Your task to perform on an android device: toggle location history Image 0: 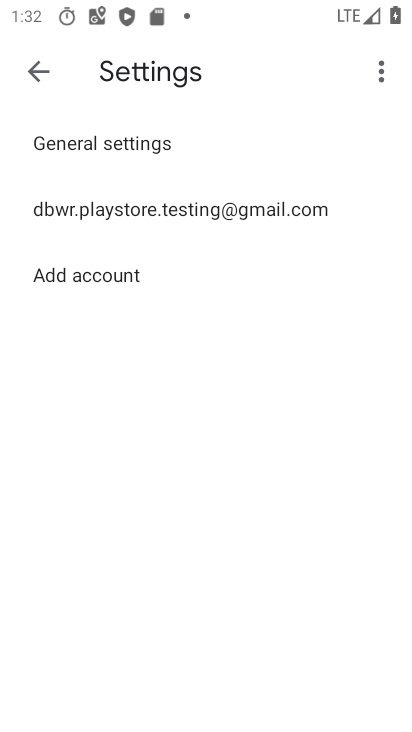
Step 0: press home button
Your task to perform on an android device: toggle location history Image 1: 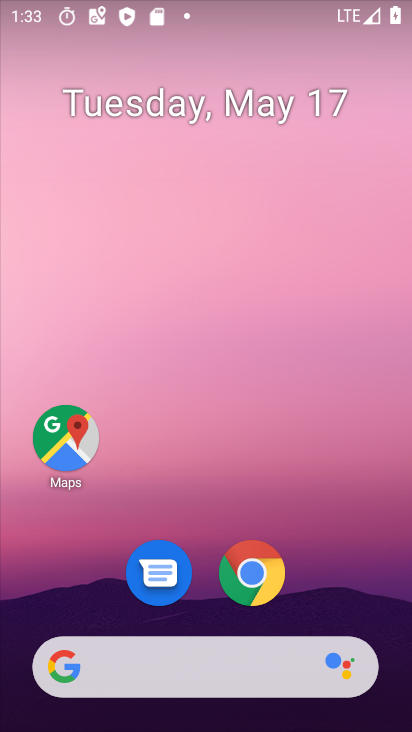
Step 1: drag from (262, 676) to (265, 42)
Your task to perform on an android device: toggle location history Image 2: 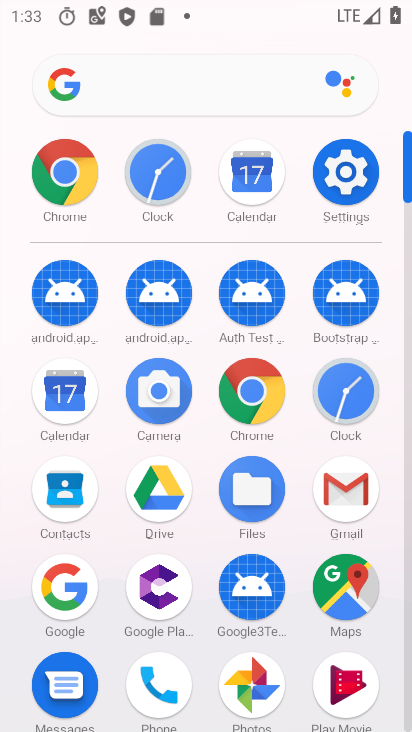
Step 2: click (343, 184)
Your task to perform on an android device: toggle location history Image 3: 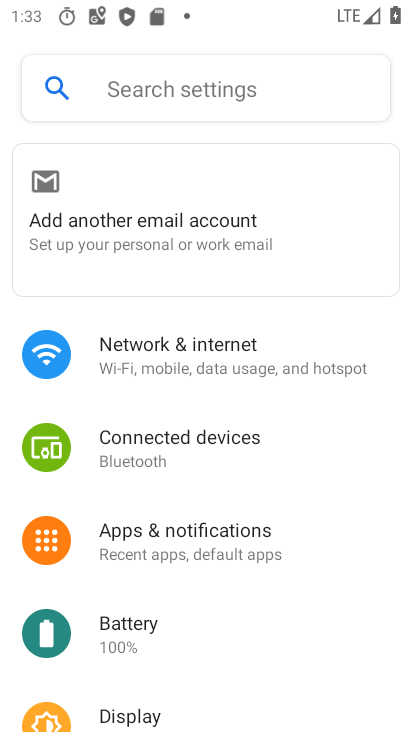
Step 3: drag from (207, 671) to (253, 121)
Your task to perform on an android device: toggle location history Image 4: 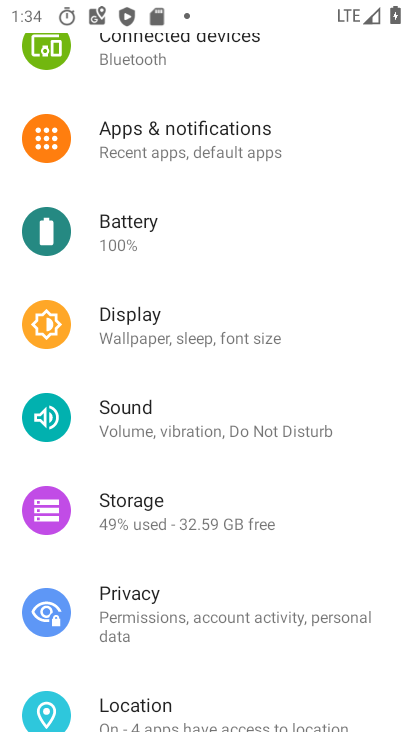
Step 4: click (154, 706)
Your task to perform on an android device: toggle location history Image 5: 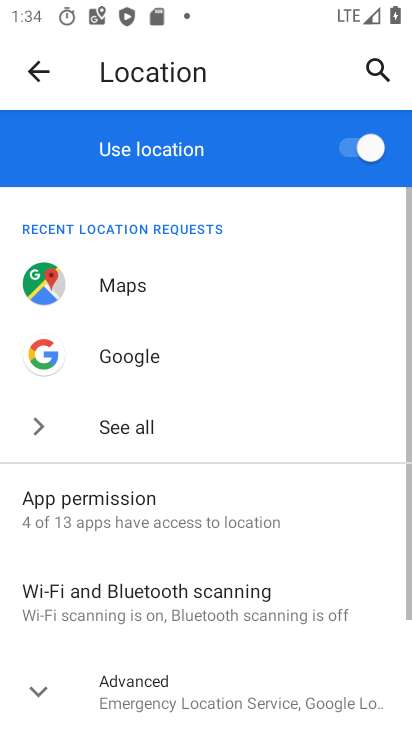
Step 5: click (359, 142)
Your task to perform on an android device: toggle location history Image 6: 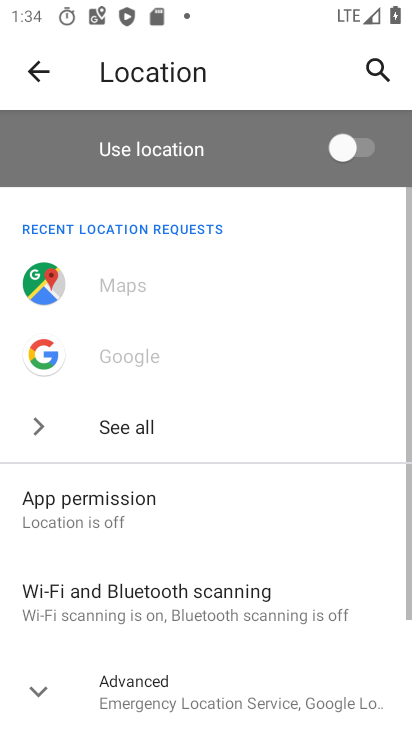
Step 6: task complete